Your task to perform on an android device: choose inbox layout in the gmail app Image 0: 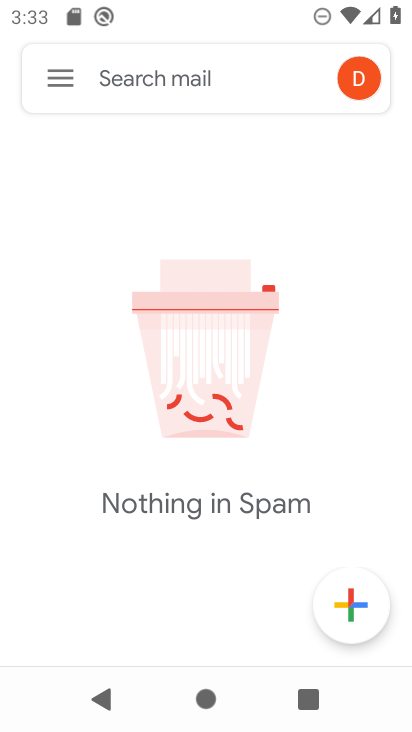
Step 0: click (56, 76)
Your task to perform on an android device: choose inbox layout in the gmail app Image 1: 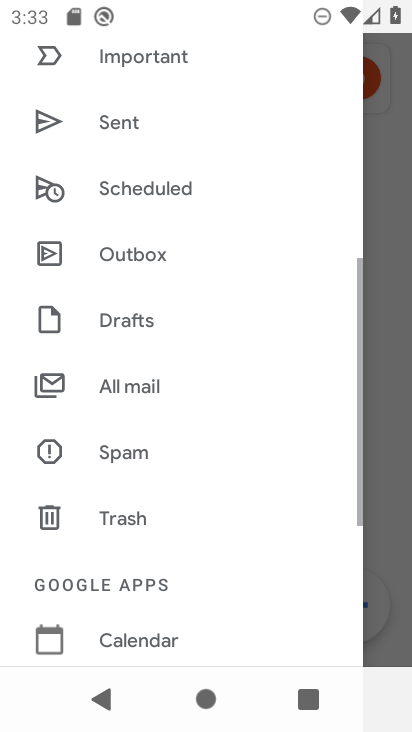
Step 1: drag from (152, 578) to (246, 29)
Your task to perform on an android device: choose inbox layout in the gmail app Image 2: 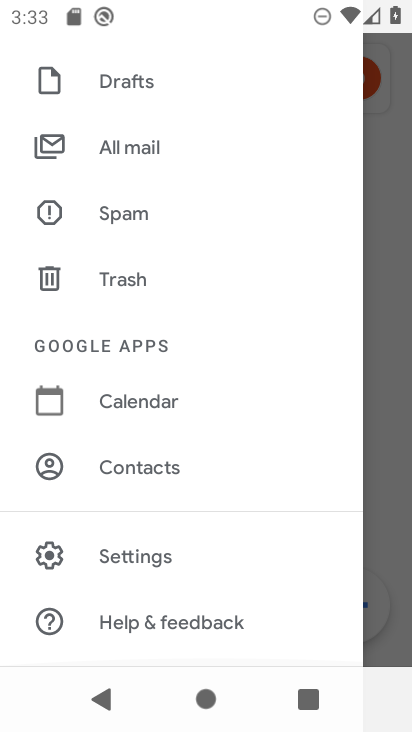
Step 2: click (116, 541)
Your task to perform on an android device: choose inbox layout in the gmail app Image 3: 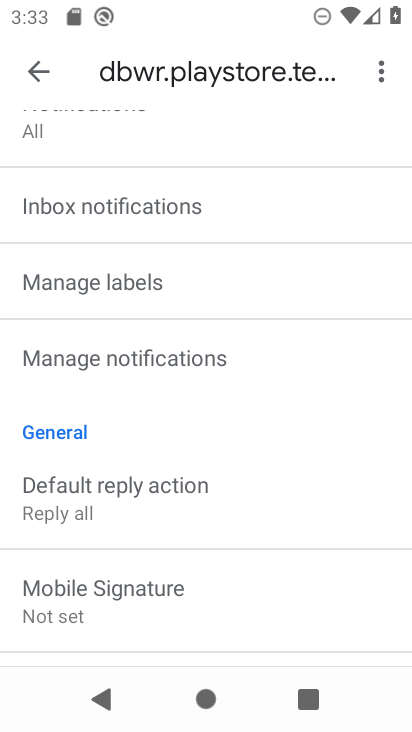
Step 3: drag from (204, 204) to (151, 631)
Your task to perform on an android device: choose inbox layout in the gmail app Image 4: 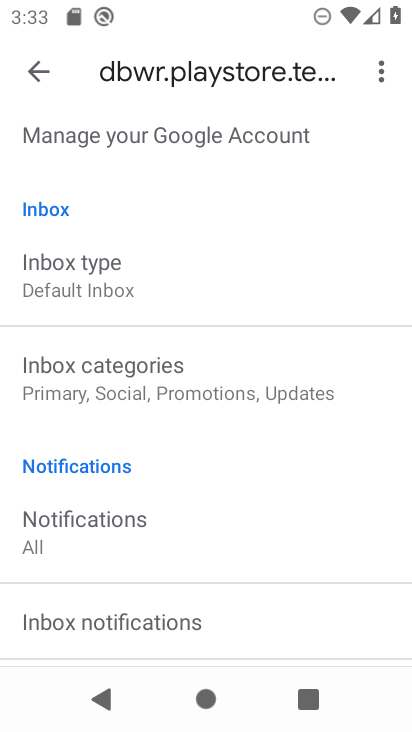
Step 4: click (80, 272)
Your task to perform on an android device: choose inbox layout in the gmail app Image 5: 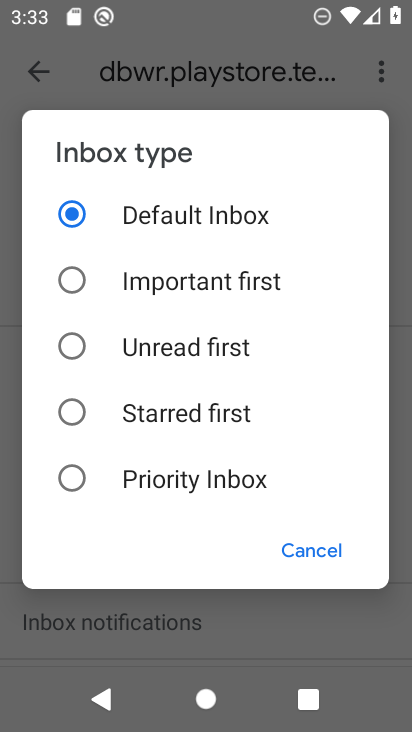
Step 5: click (74, 278)
Your task to perform on an android device: choose inbox layout in the gmail app Image 6: 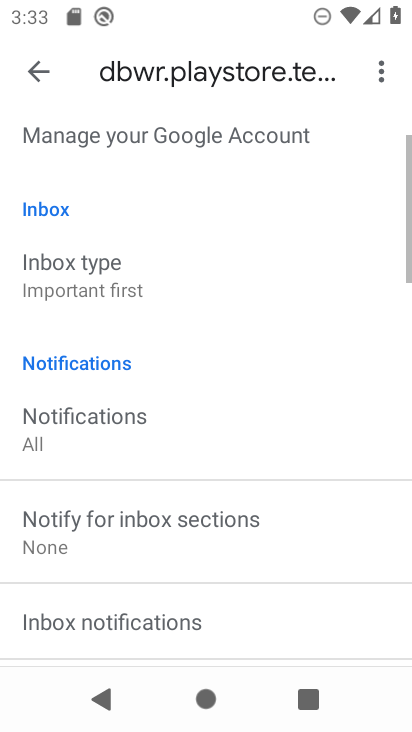
Step 6: task complete